Your task to perform on an android device: Open Wikipedia Image 0: 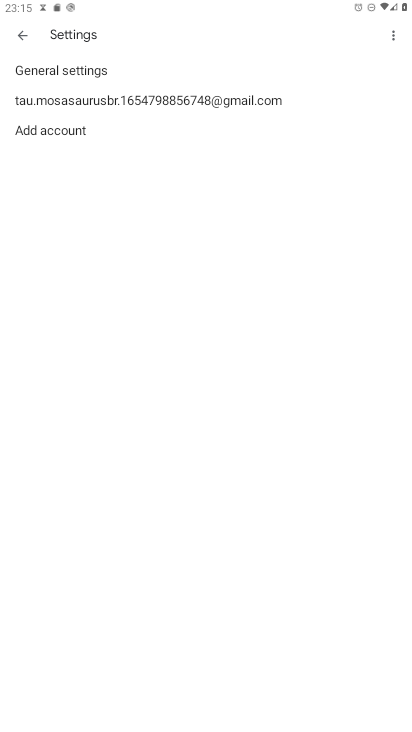
Step 0: press home button
Your task to perform on an android device: Open Wikipedia Image 1: 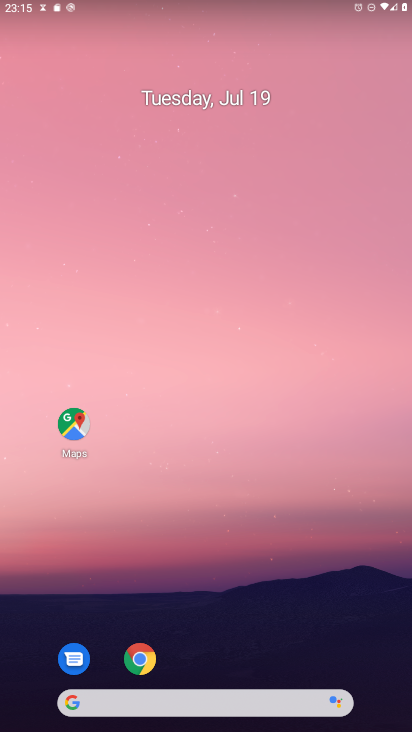
Step 1: drag from (213, 622) to (214, 165)
Your task to perform on an android device: Open Wikipedia Image 2: 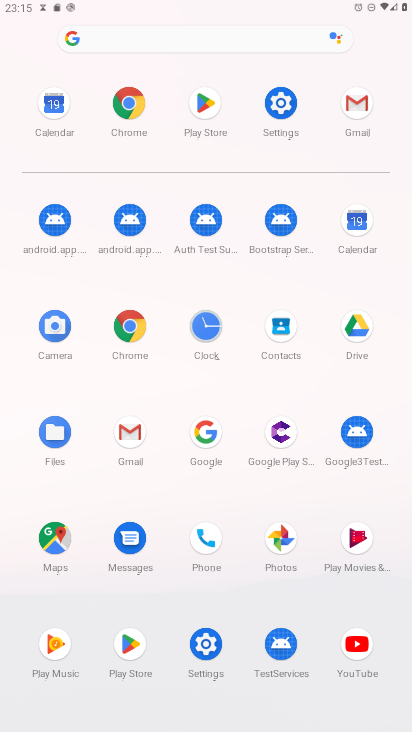
Step 2: click (129, 100)
Your task to perform on an android device: Open Wikipedia Image 3: 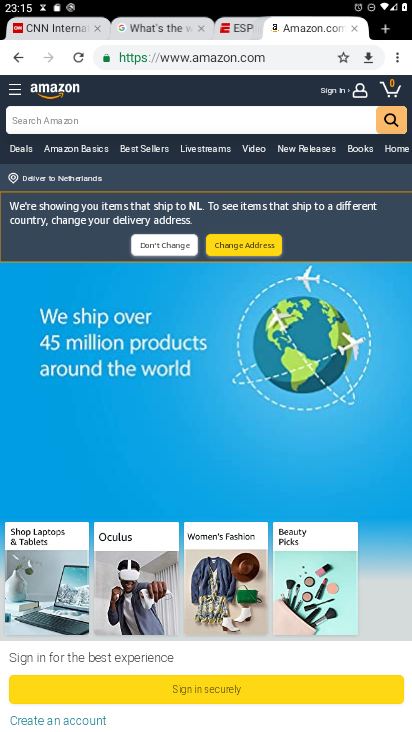
Step 3: click (383, 28)
Your task to perform on an android device: Open Wikipedia Image 4: 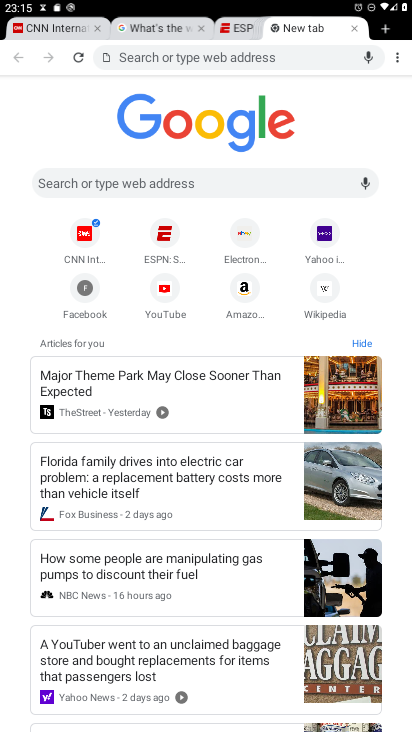
Step 4: click (320, 285)
Your task to perform on an android device: Open Wikipedia Image 5: 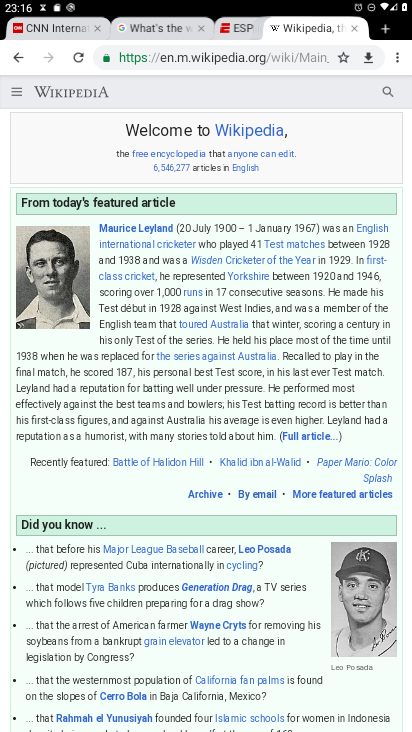
Step 5: task complete